Your task to perform on an android device: Toggle the flashlight Image 0: 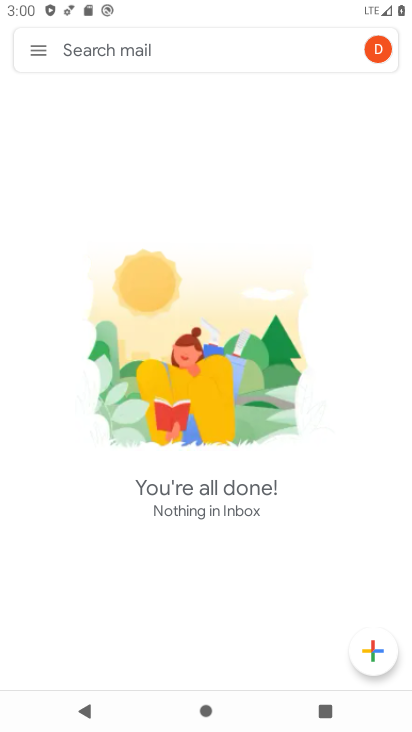
Step 0: press home button
Your task to perform on an android device: Toggle the flashlight Image 1: 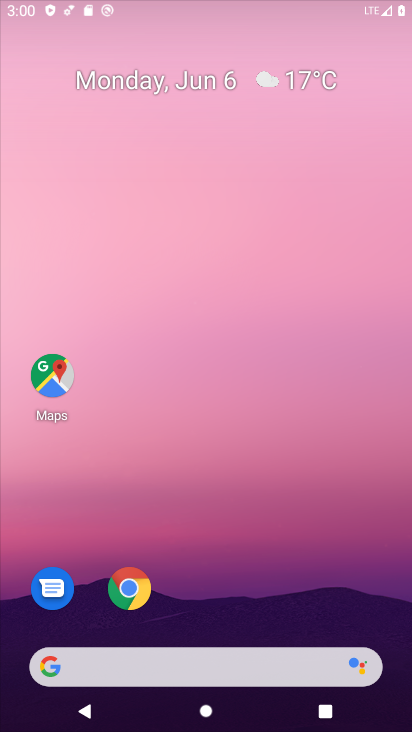
Step 1: task complete